Your task to perform on an android device: set an alarm Image 0: 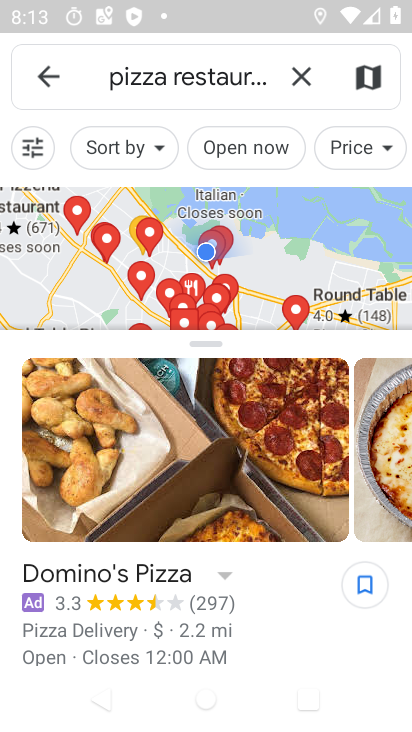
Step 0: press home button
Your task to perform on an android device: set an alarm Image 1: 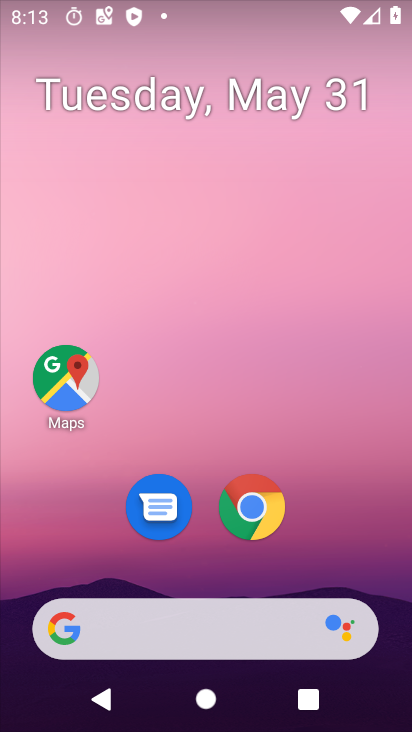
Step 1: drag from (371, 557) to (297, 10)
Your task to perform on an android device: set an alarm Image 2: 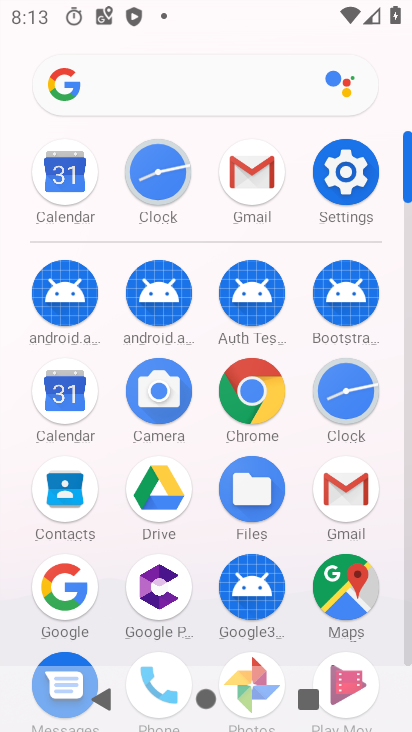
Step 2: click (159, 175)
Your task to perform on an android device: set an alarm Image 3: 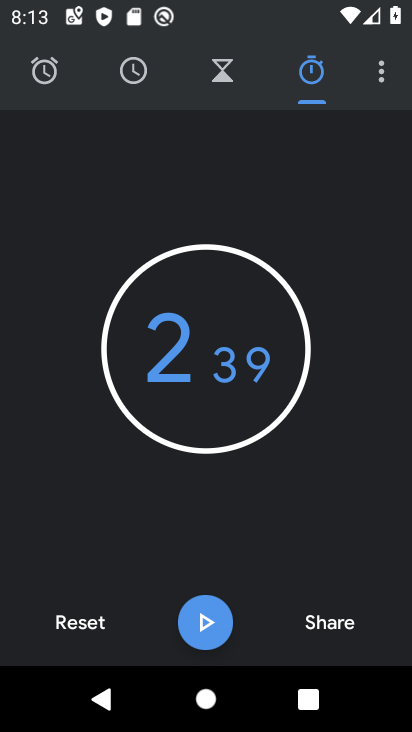
Step 3: click (48, 83)
Your task to perform on an android device: set an alarm Image 4: 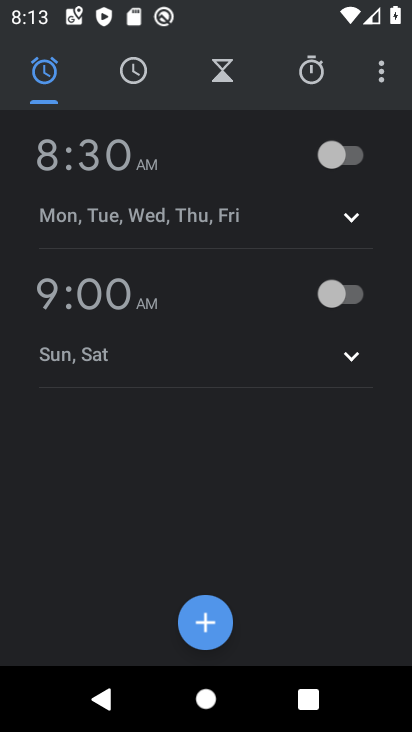
Step 4: click (208, 617)
Your task to perform on an android device: set an alarm Image 5: 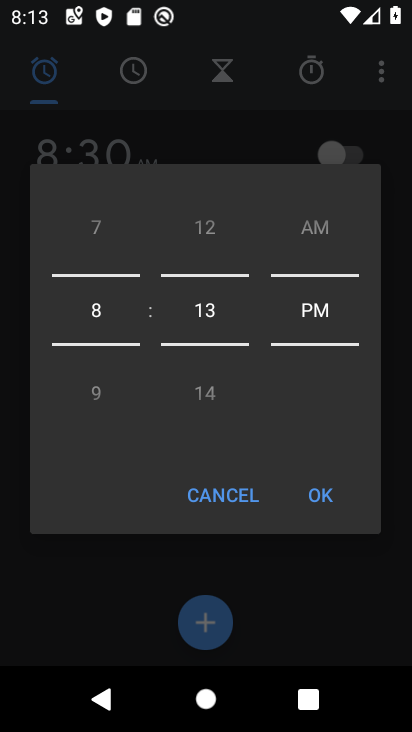
Step 5: drag from (96, 281) to (80, 490)
Your task to perform on an android device: set an alarm Image 6: 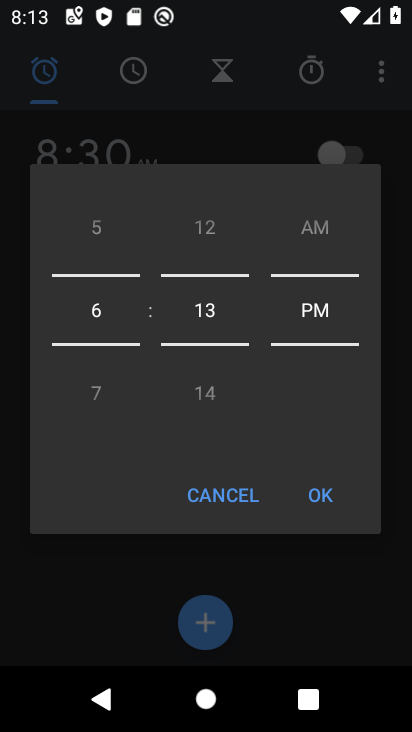
Step 6: drag from (204, 313) to (189, 606)
Your task to perform on an android device: set an alarm Image 7: 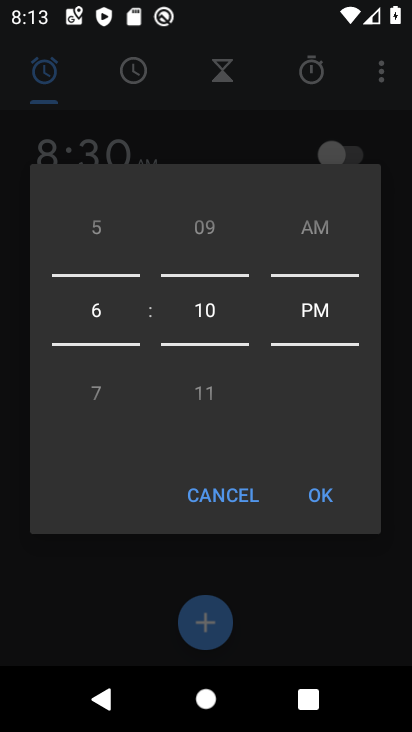
Step 7: drag from (206, 312) to (175, 523)
Your task to perform on an android device: set an alarm Image 8: 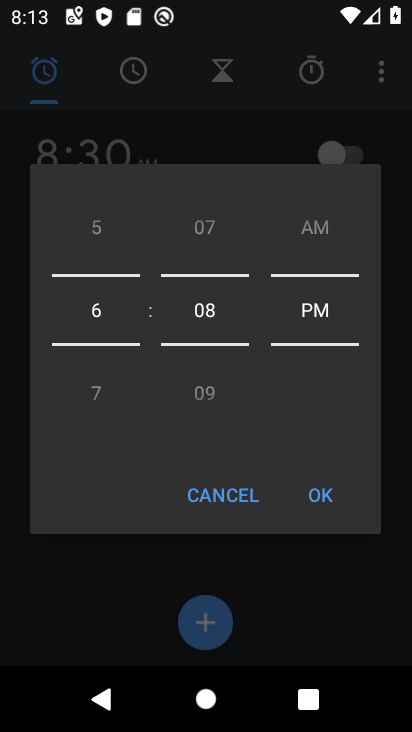
Step 8: drag from (202, 309) to (201, 580)
Your task to perform on an android device: set an alarm Image 9: 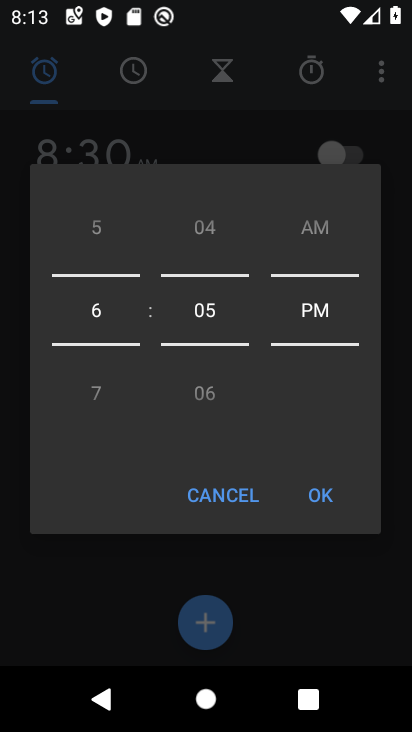
Step 9: drag from (321, 316) to (328, 595)
Your task to perform on an android device: set an alarm Image 10: 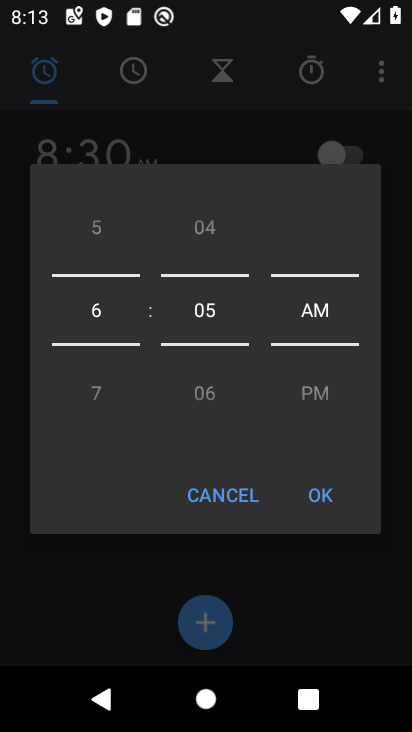
Step 10: click (330, 505)
Your task to perform on an android device: set an alarm Image 11: 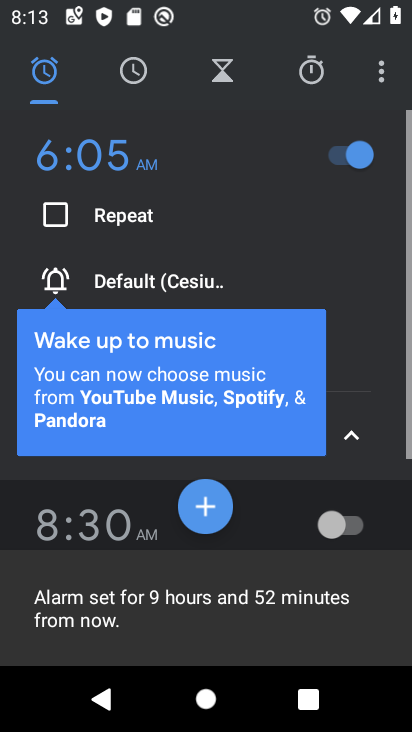
Step 11: task complete